Your task to perform on an android device: manage bookmarks in the chrome app Image 0: 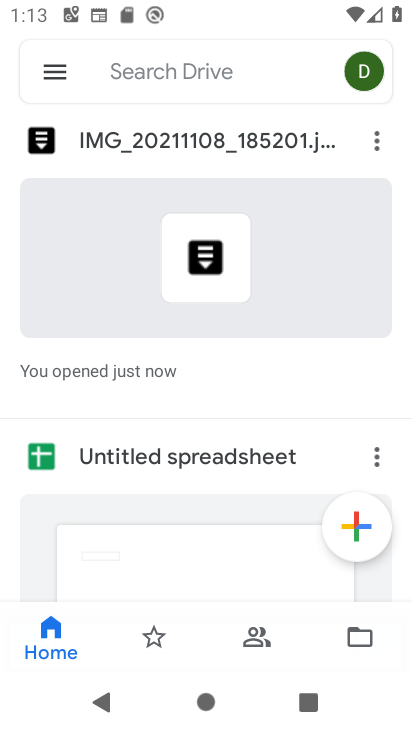
Step 0: press home button
Your task to perform on an android device: manage bookmarks in the chrome app Image 1: 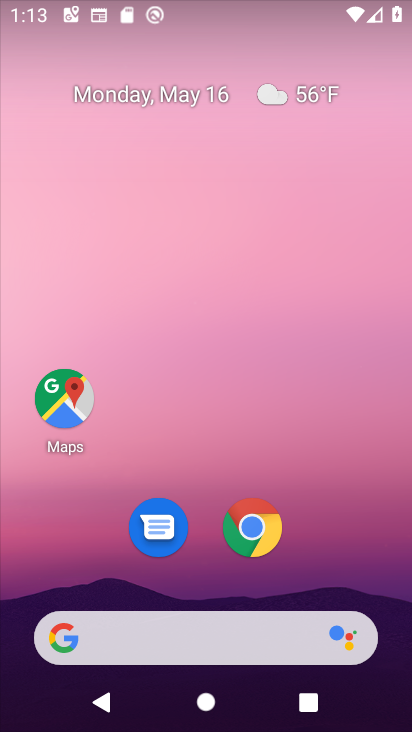
Step 1: click (254, 536)
Your task to perform on an android device: manage bookmarks in the chrome app Image 2: 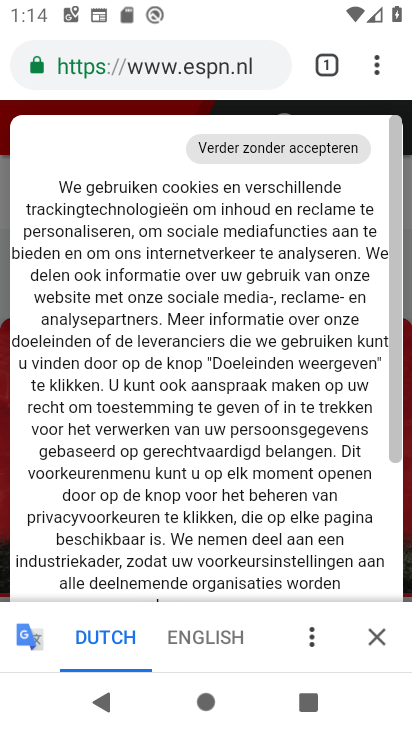
Step 2: task complete